Your task to perform on an android device: find which apps use the phone's location Image 0: 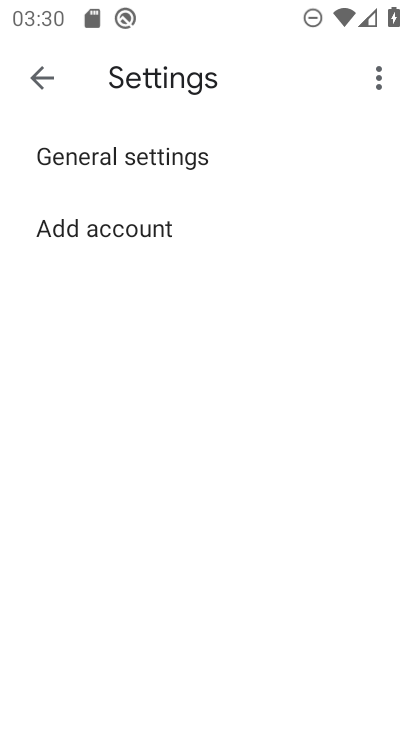
Step 0: press home button
Your task to perform on an android device: find which apps use the phone's location Image 1: 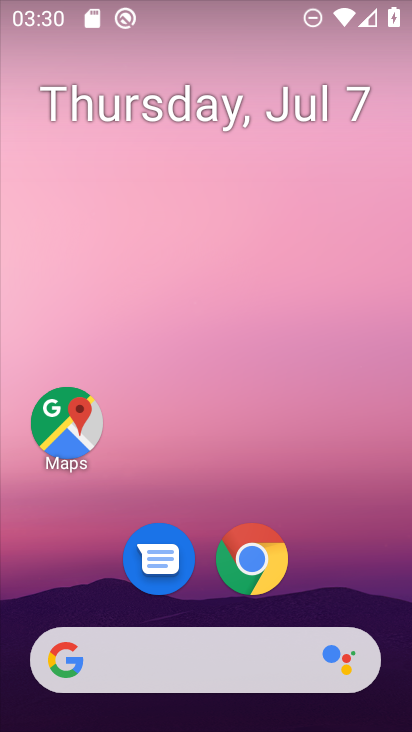
Step 1: drag from (361, 583) to (357, 197)
Your task to perform on an android device: find which apps use the phone's location Image 2: 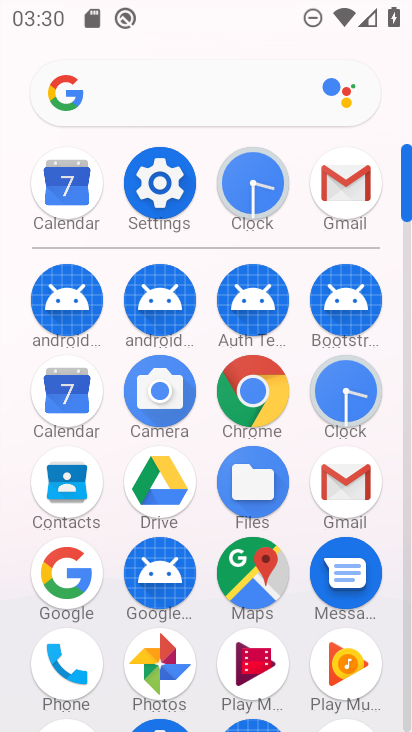
Step 2: click (170, 181)
Your task to perform on an android device: find which apps use the phone's location Image 3: 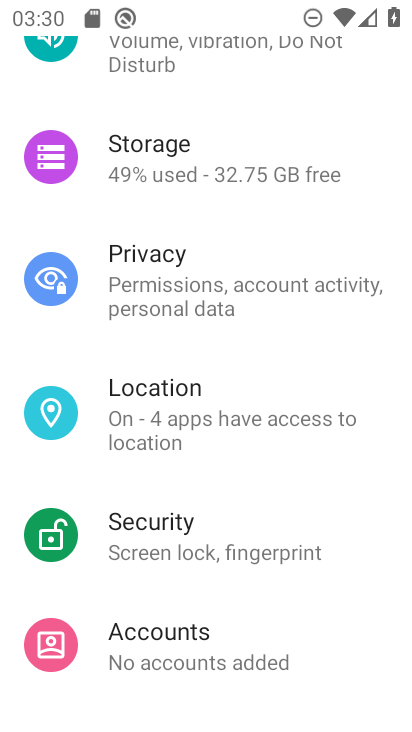
Step 3: drag from (269, 217) to (295, 346)
Your task to perform on an android device: find which apps use the phone's location Image 4: 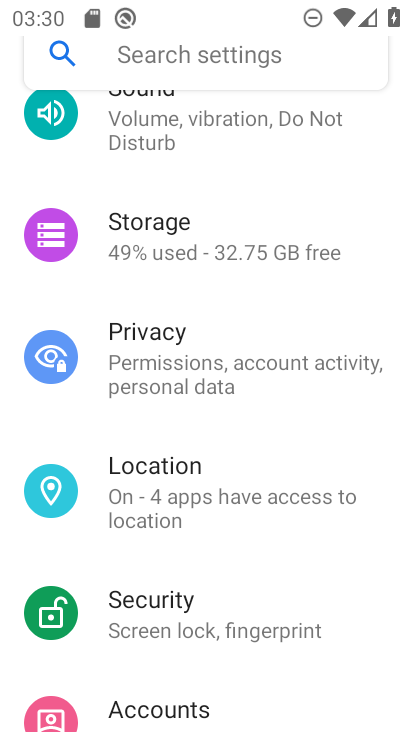
Step 4: drag from (335, 196) to (355, 298)
Your task to perform on an android device: find which apps use the phone's location Image 5: 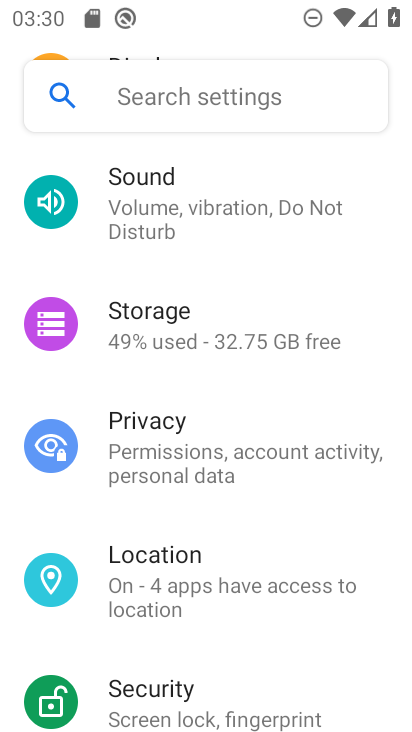
Step 5: drag from (368, 194) to (375, 326)
Your task to perform on an android device: find which apps use the phone's location Image 6: 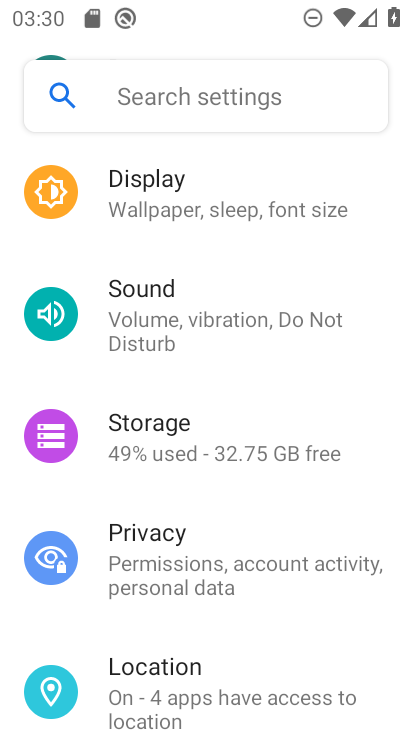
Step 6: drag from (369, 185) to (384, 308)
Your task to perform on an android device: find which apps use the phone's location Image 7: 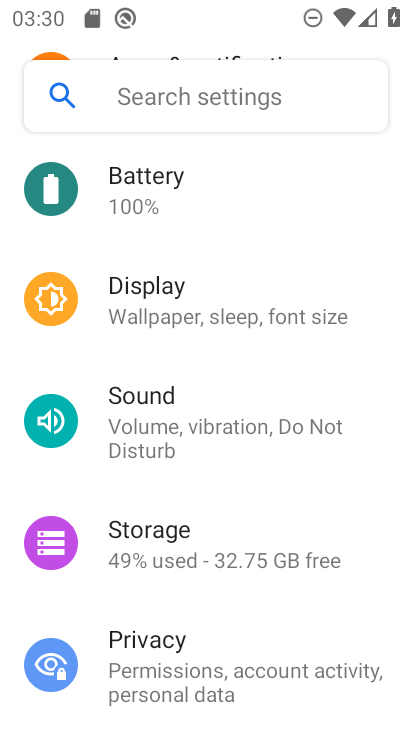
Step 7: drag from (364, 189) to (383, 318)
Your task to perform on an android device: find which apps use the phone's location Image 8: 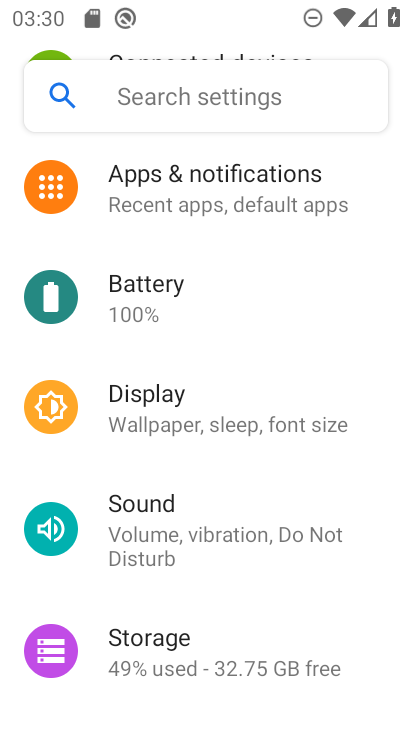
Step 8: drag from (365, 216) to (376, 308)
Your task to perform on an android device: find which apps use the phone's location Image 9: 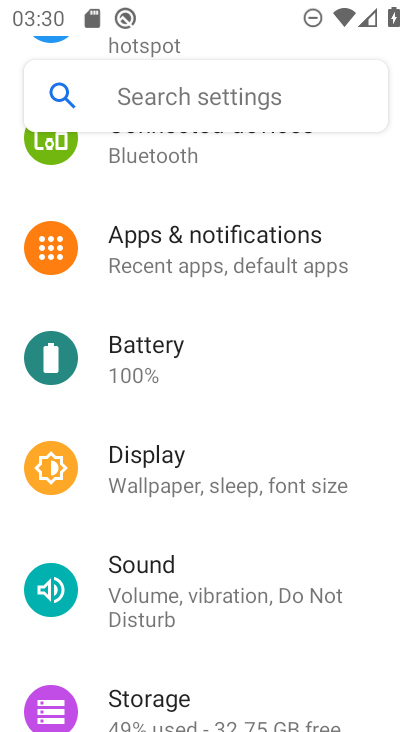
Step 9: drag from (359, 197) to (367, 404)
Your task to perform on an android device: find which apps use the phone's location Image 10: 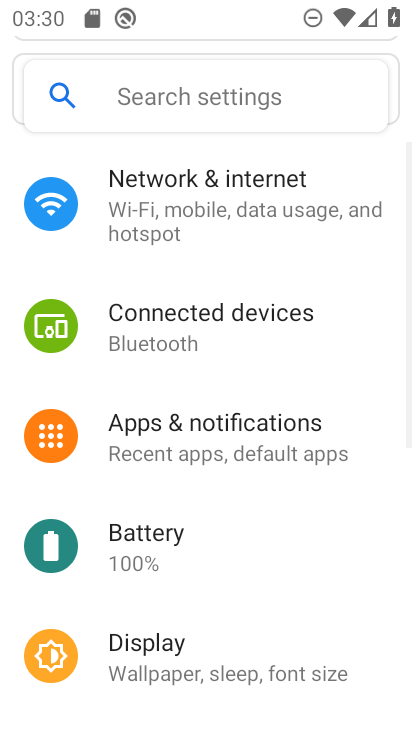
Step 10: drag from (355, 416) to (351, 291)
Your task to perform on an android device: find which apps use the phone's location Image 11: 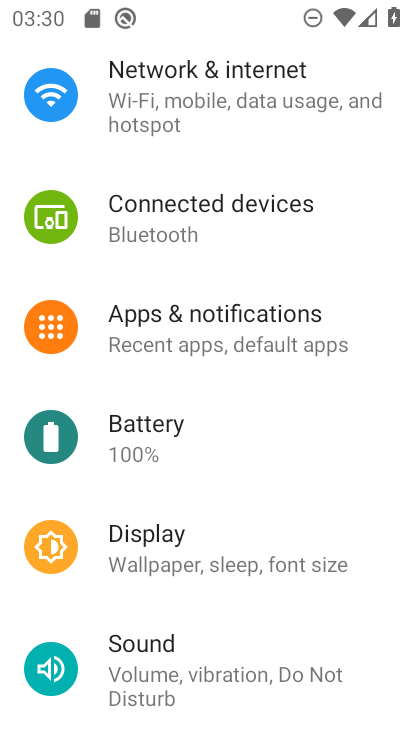
Step 11: drag from (338, 438) to (339, 306)
Your task to perform on an android device: find which apps use the phone's location Image 12: 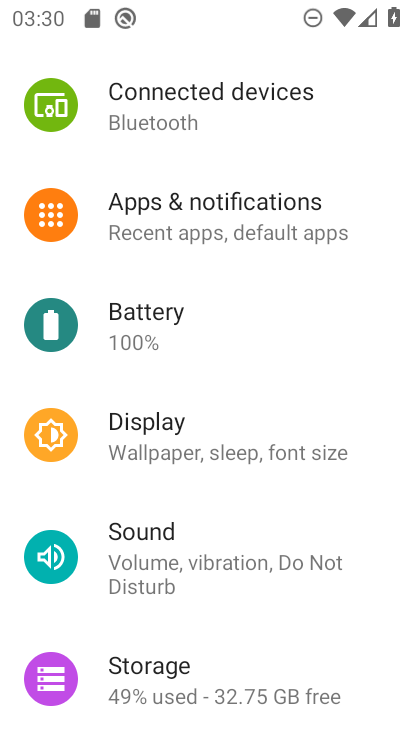
Step 12: drag from (352, 483) to (365, 330)
Your task to perform on an android device: find which apps use the phone's location Image 13: 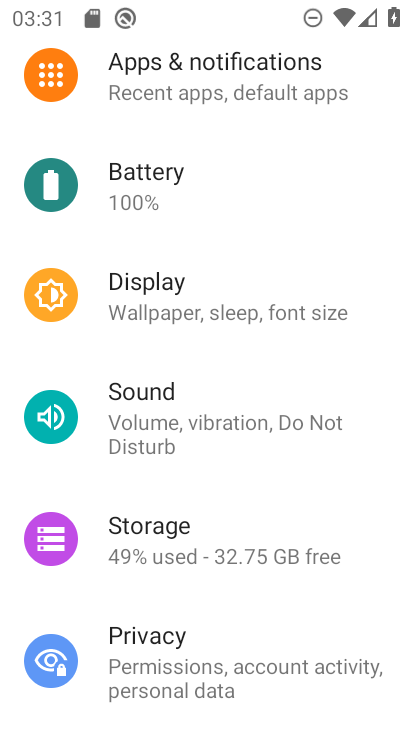
Step 13: drag from (356, 468) to (371, 365)
Your task to perform on an android device: find which apps use the phone's location Image 14: 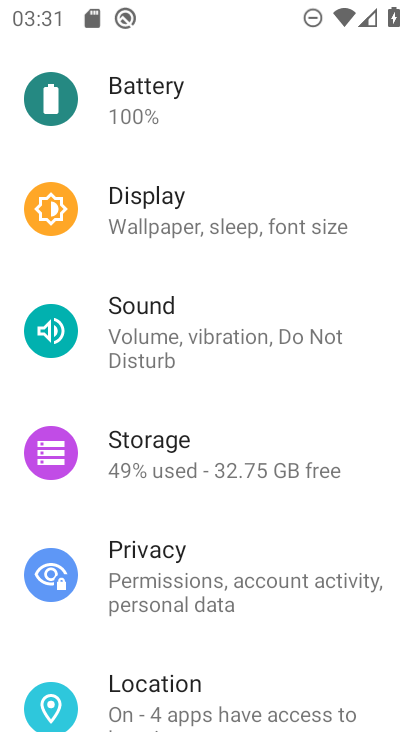
Step 14: drag from (353, 500) to (354, 367)
Your task to perform on an android device: find which apps use the phone's location Image 15: 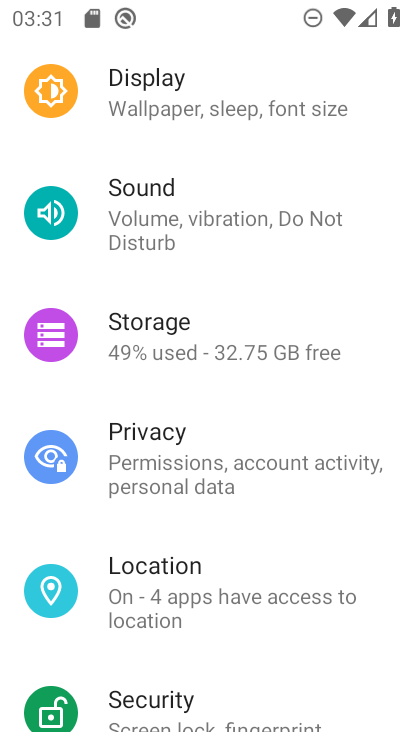
Step 15: drag from (350, 530) to (357, 408)
Your task to perform on an android device: find which apps use the phone's location Image 16: 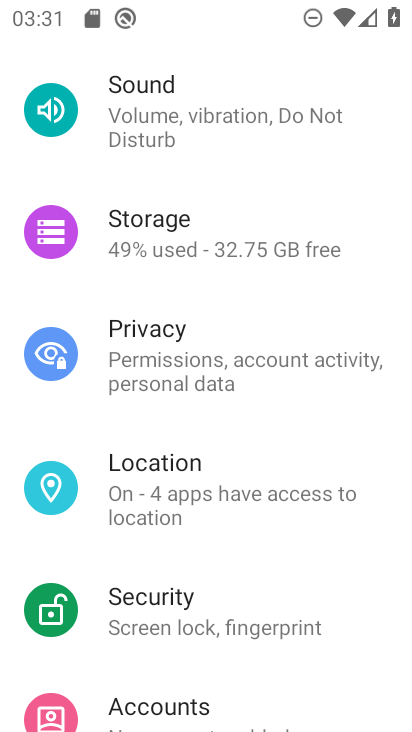
Step 16: click (278, 489)
Your task to perform on an android device: find which apps use the phone's location Image 17: 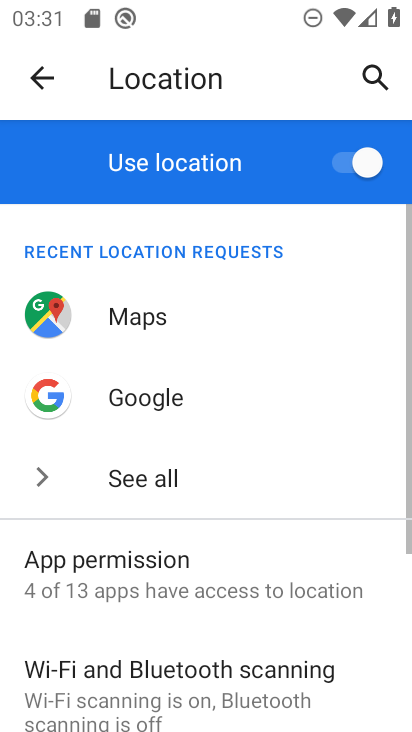
Step 17: drag from (284, 493) to (305, 346)
Your task to perform on an android device: find which apps use the phone's location Image 18: 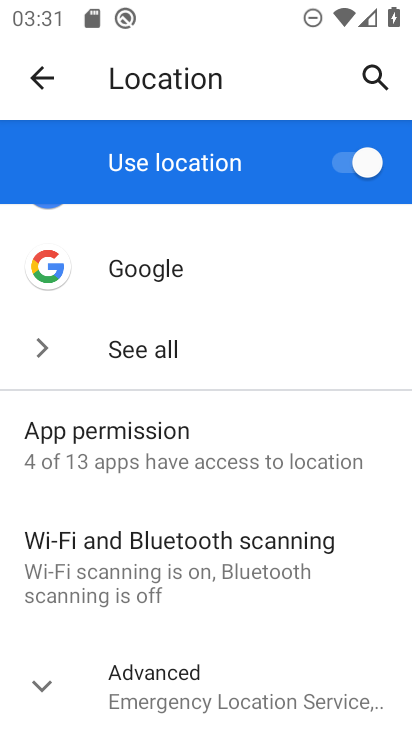
Step 18: click (289, 452)
Your task to perform on an android device: find which apps use the phone's location Image 19: 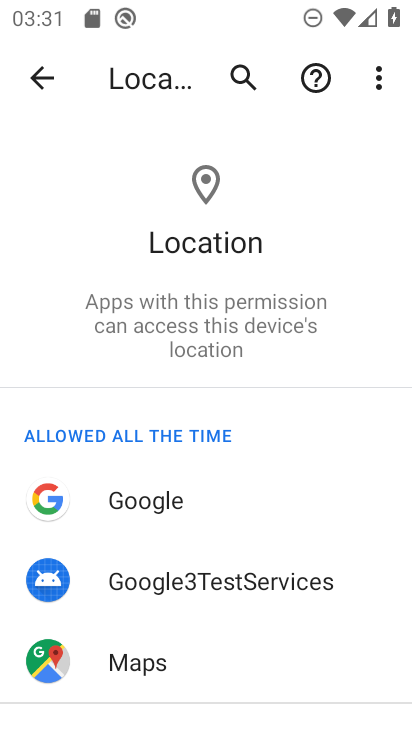
Step 19: drag from (324, 518) to (326, 402)
Your task to perform on an android device: find which apps use the phone's location Image 20: 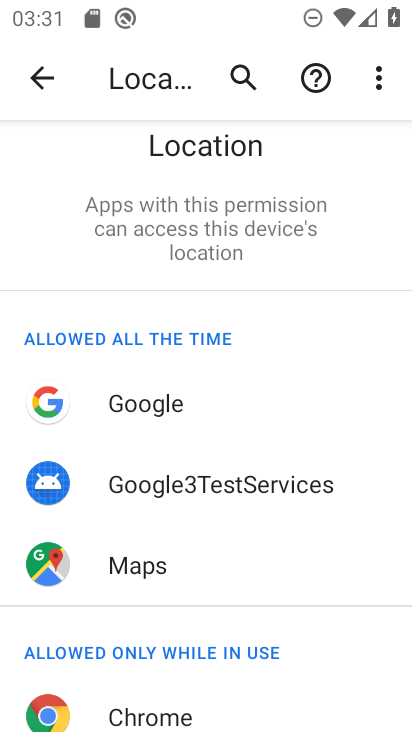
Step 20: drag from (332, 541) to (336, 364)
Your task to perform on an android device: find which apps use the phone's location Image 21: 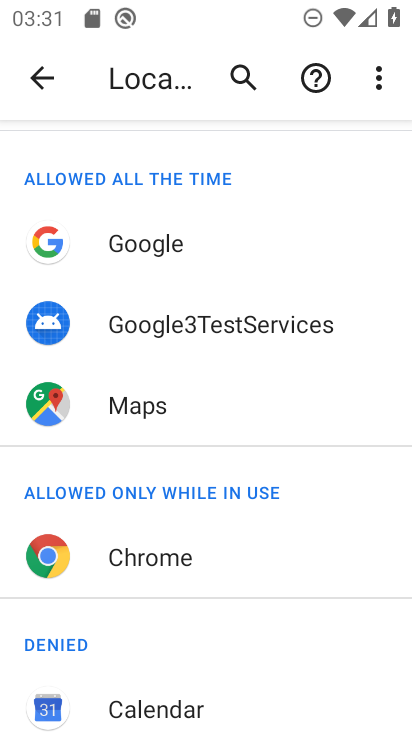
Step 21: drag from (341, 526) to (343, 388)
Your task to perform on an android device: find which apps use the phone's location Image 22: 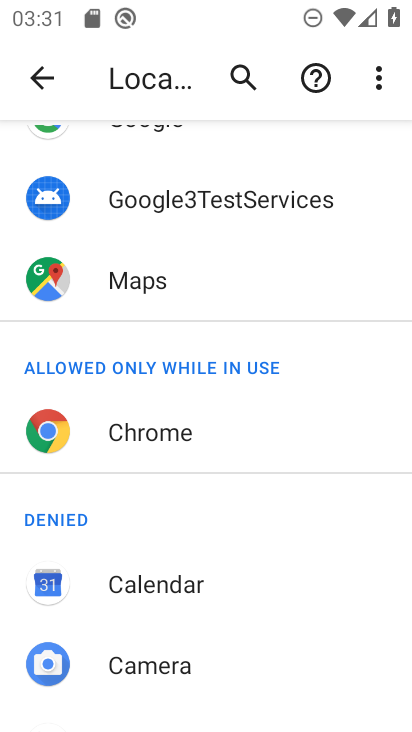
Step 22: drag from (329, 558) to (329, 416)
Your task to perform on an android device: find which apps use the phone's location Image 23: 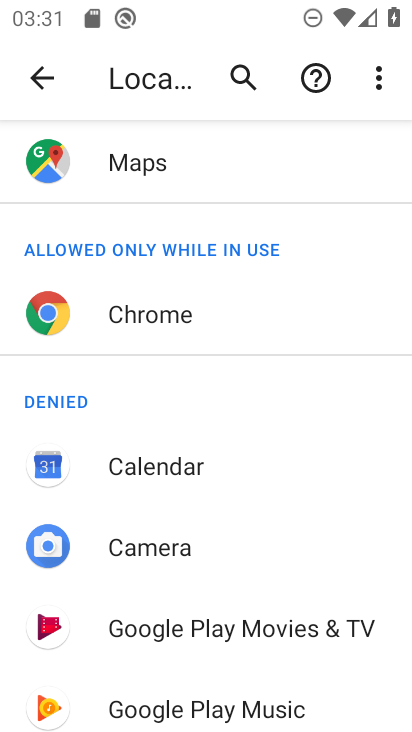
Step 23: drag from (324, 612) to (331, 483)
Your task to perform on an android device: find which apps use the phone's location Image 24: 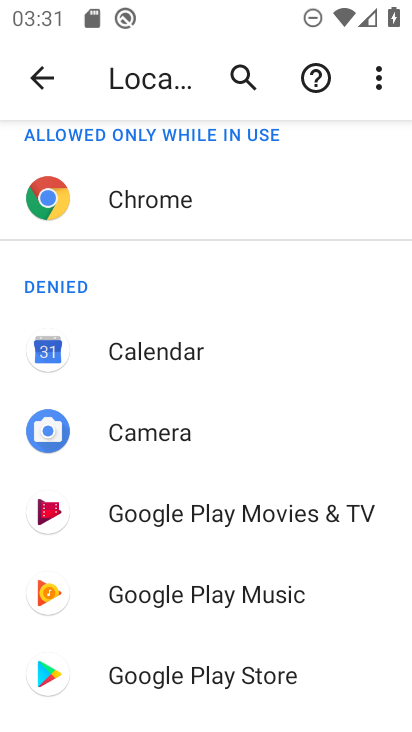
Step 24: drag from (343, 633) to (341, 505)
Your task to perform on an android device: find which apps use the phone's location Image 25: 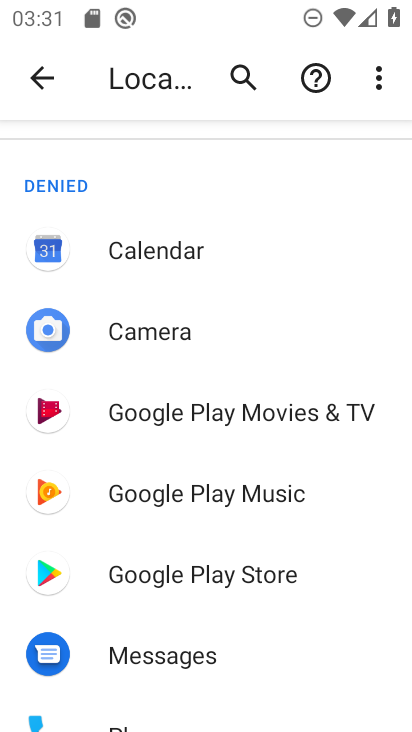
Step 25: drag from (342, 646) to (339, 506)
Your task to perform on an android device: find which apps use the phone's location Image 26: 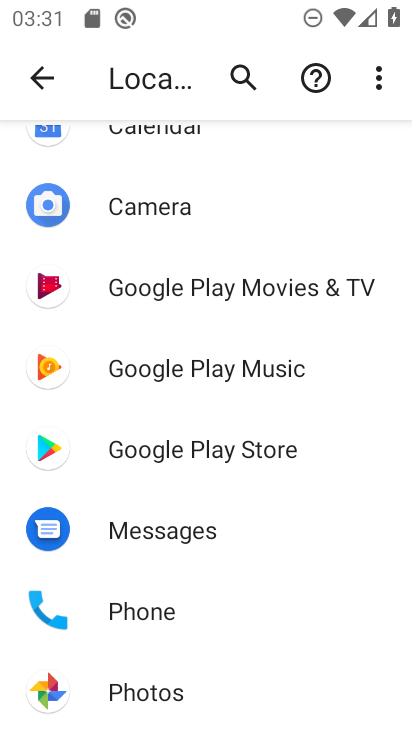
Step 26: drag from (305, 648) to (303, 515)
Your task to perform on an android device: find which apps use the phone's location Image 27: 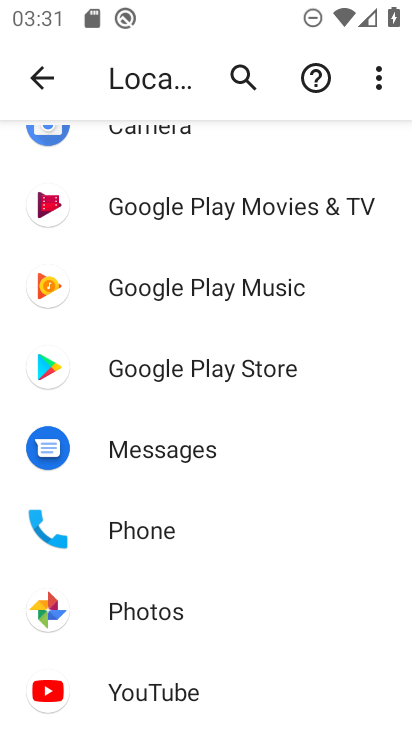
Step 27: click (201, 601)
Your task to perform on an android device: find which apps use the phone's location Image 28: 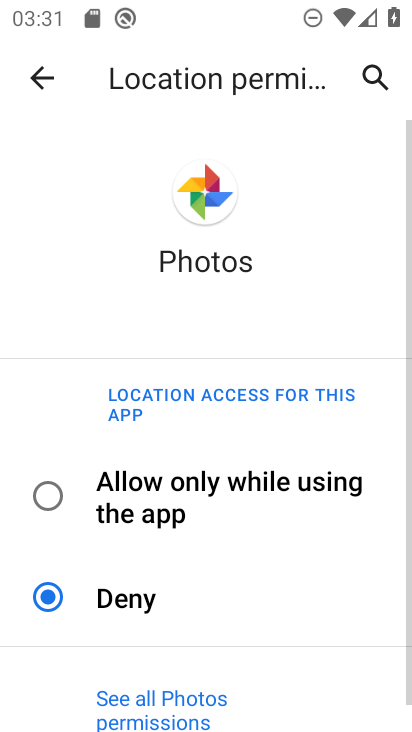
Step 28: click (146, 528)
Your task to perform on an android device: find which apps use the phone's location Image 29: 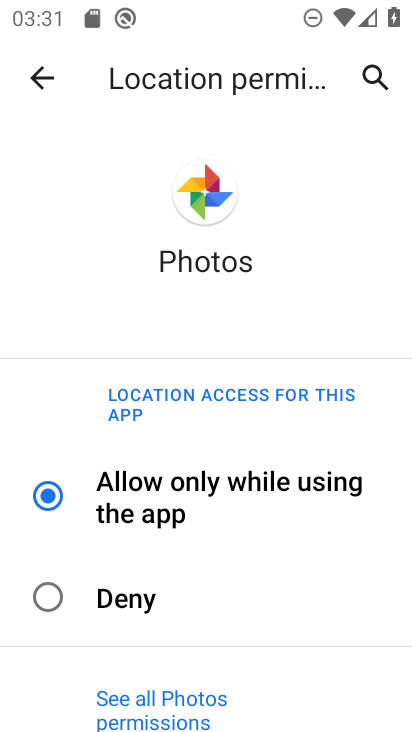
Step 29: task complete